Your task to perform on an android device: Open Android settings Image 0: 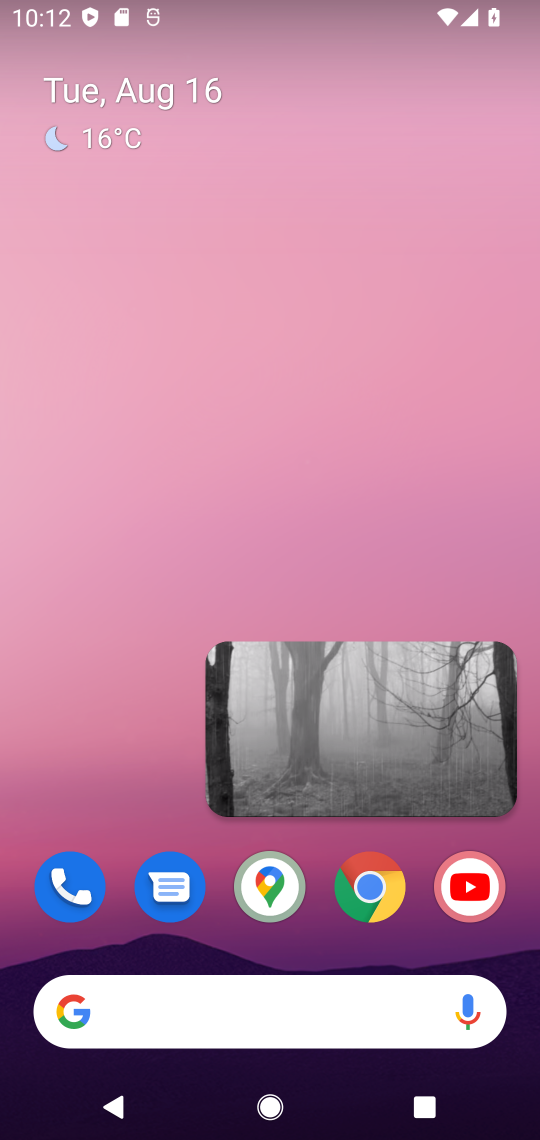
Step 0: press home button
Your task to perform on an android device: Open Android settings Image 1: 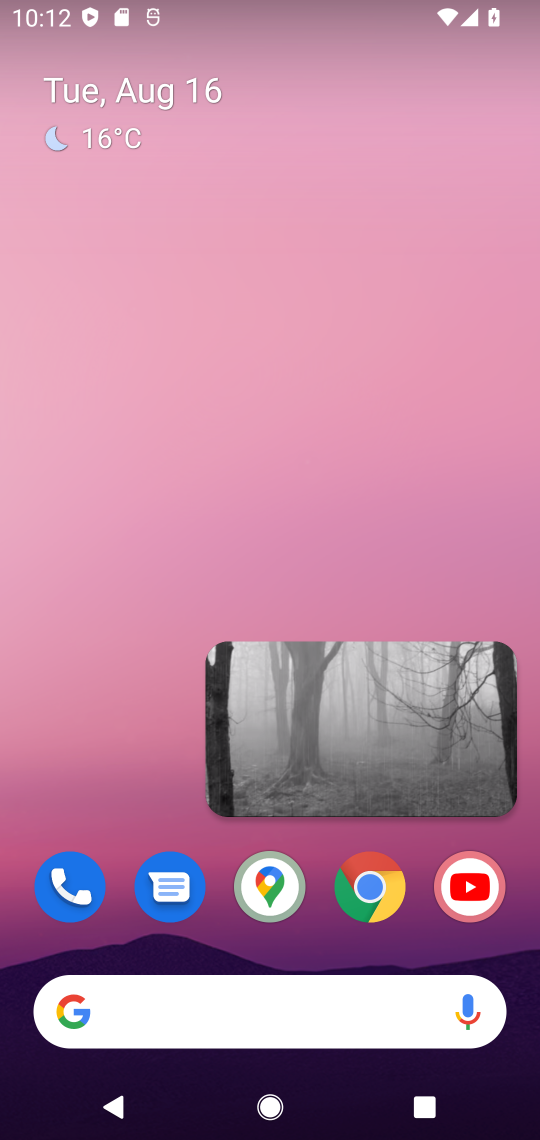
Step 1: drag from (85, 788) to (118, 137)
Your task to perform on an android device: Open Android settings Image 2: 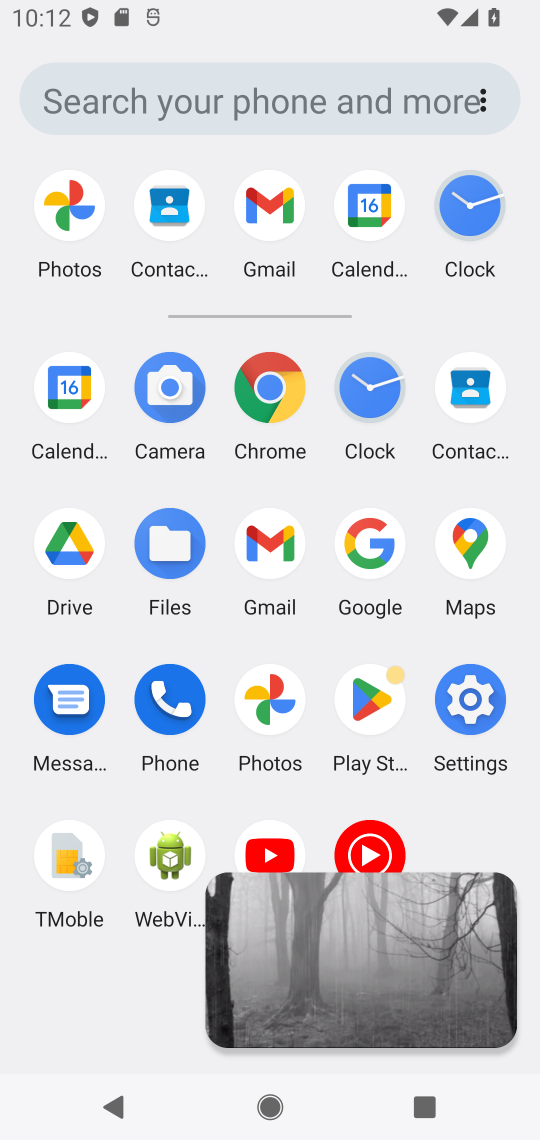
Step 2: click (474, 696)
Your task to perform on an android device: Open Android settings Image 3: 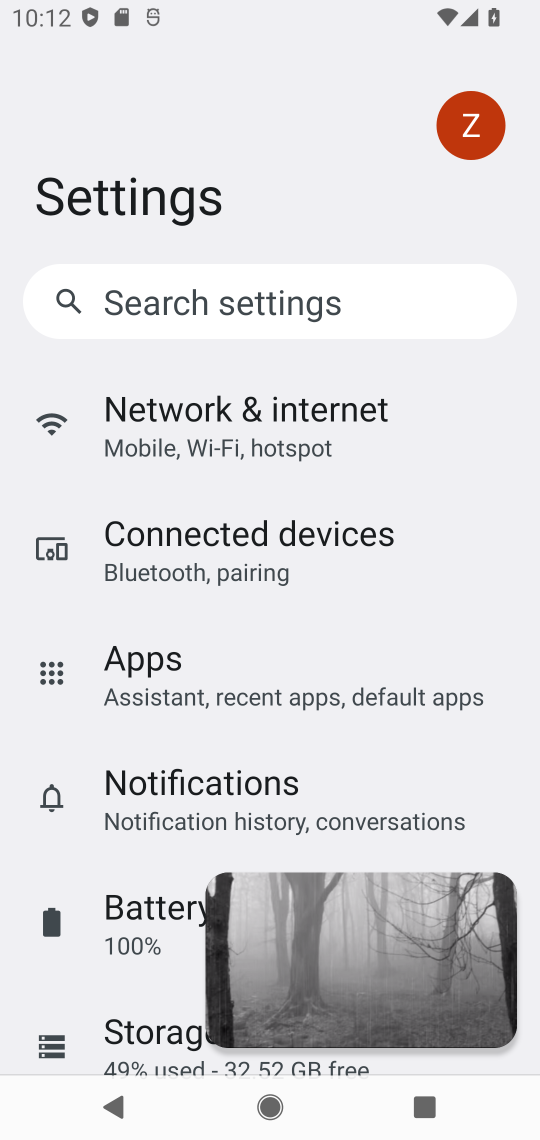
Step 3: drag from (420, 753) to (477, 420)
Your task to perform on an android device: Open Android settings Image 4: 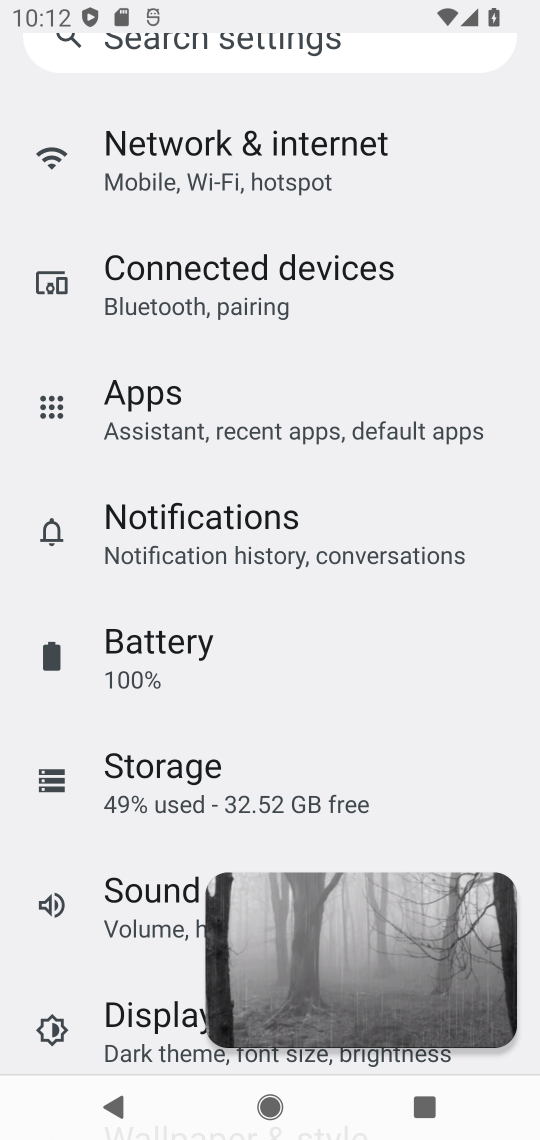
Step 4: drag from (438, 729) to (443, 556)
Your task to perform on an android device: Open Android settings Image 5: 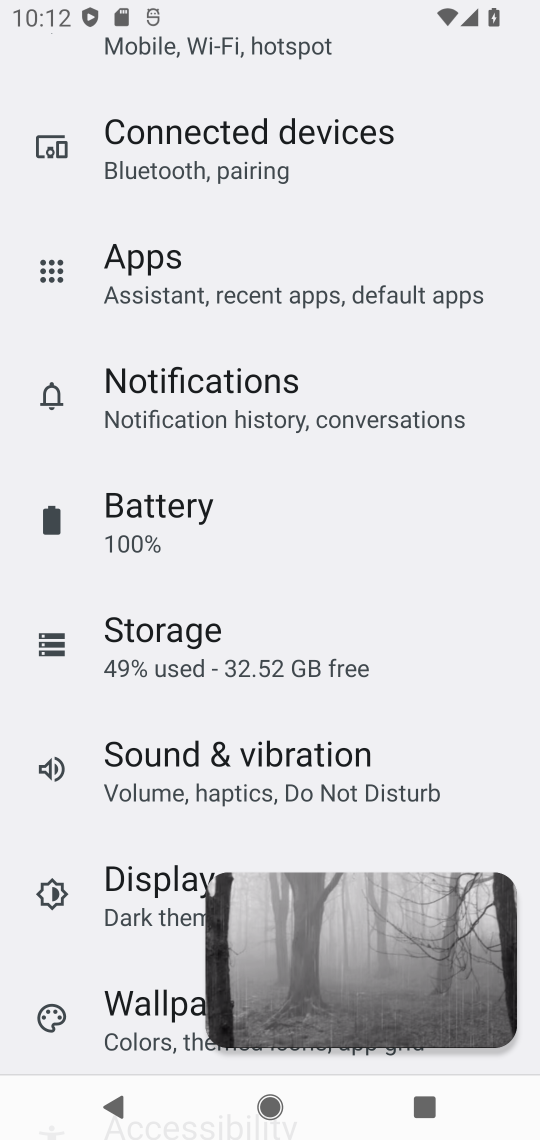
Step 5: drag from (446, 698) to (455, 489)
Your task to perform on an android device: Open Android settings Image 6: 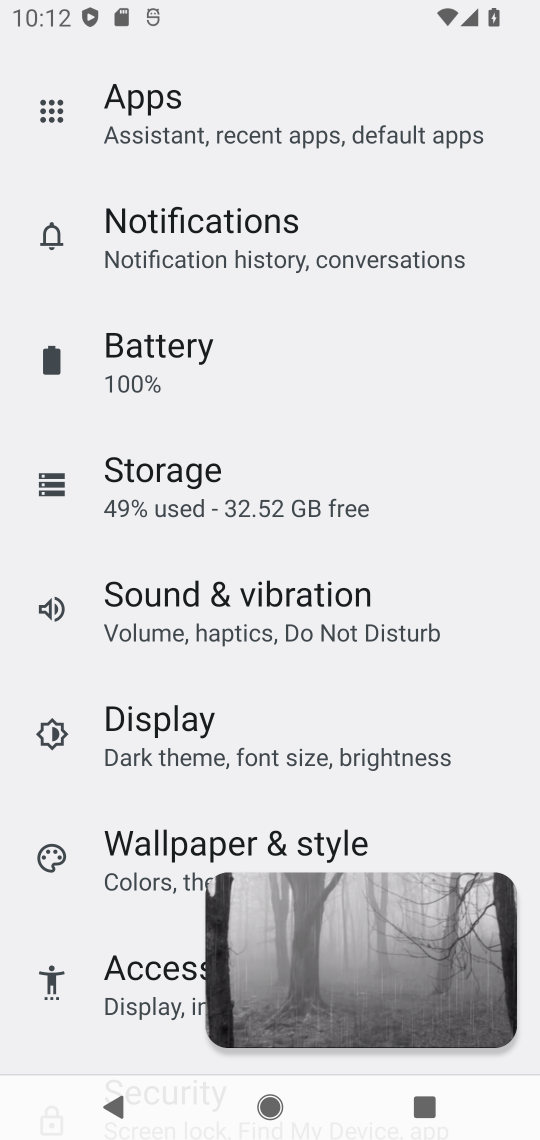
Step 6: drag from (476, 790) to (489, 507)
Your task to perform on an android device: Open Android settings Image 7: 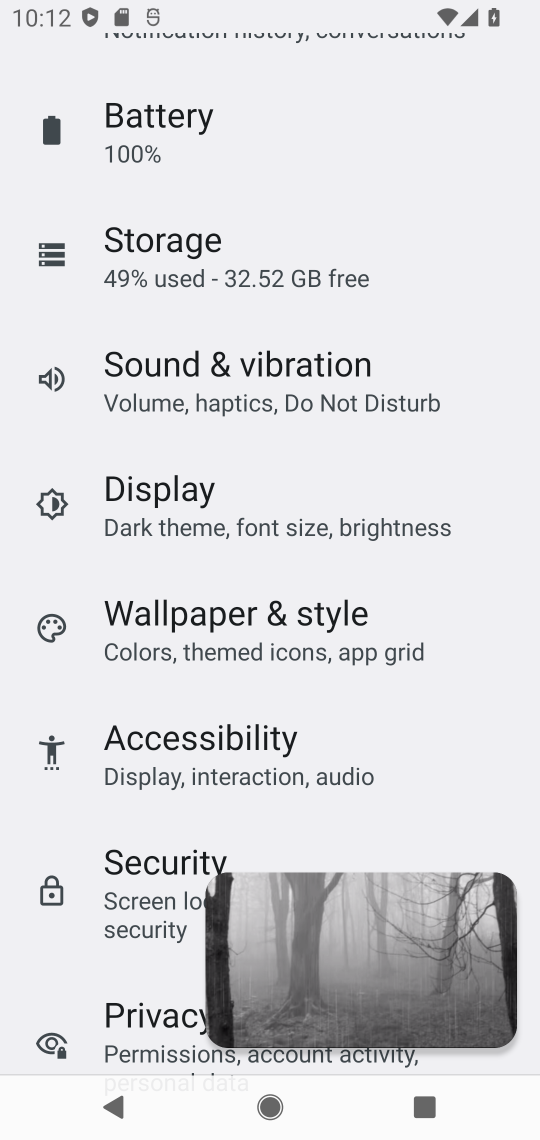
Step 7: drag from (448, 749) to (466, 437)
Your task to perform on an android device: Open Android settings Image 8: 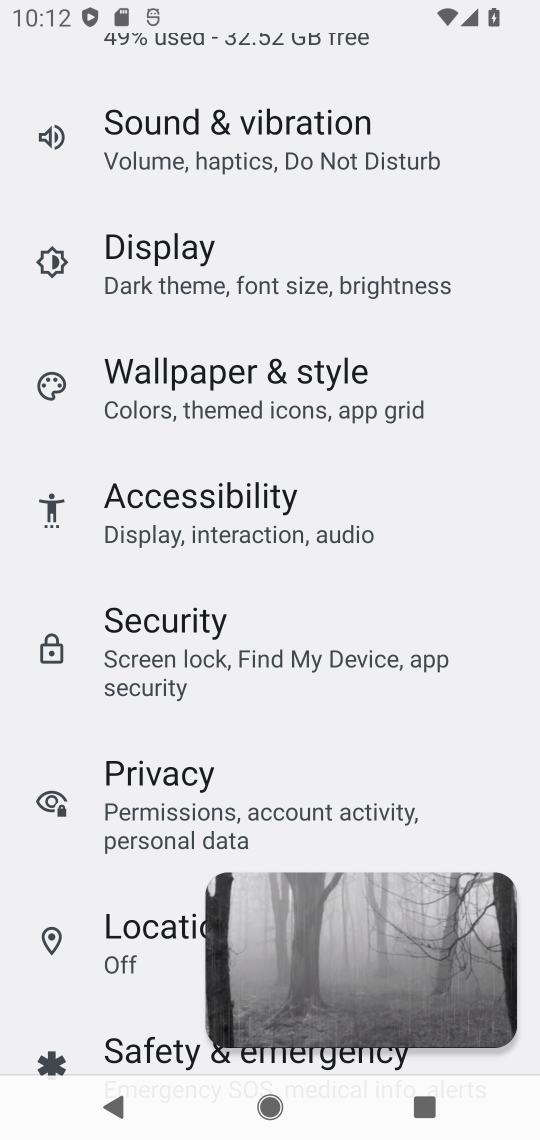
Step 8: drag from (417, 780) to (424, 498)
Your task to perform on an android device: Open Android settings Image 9: 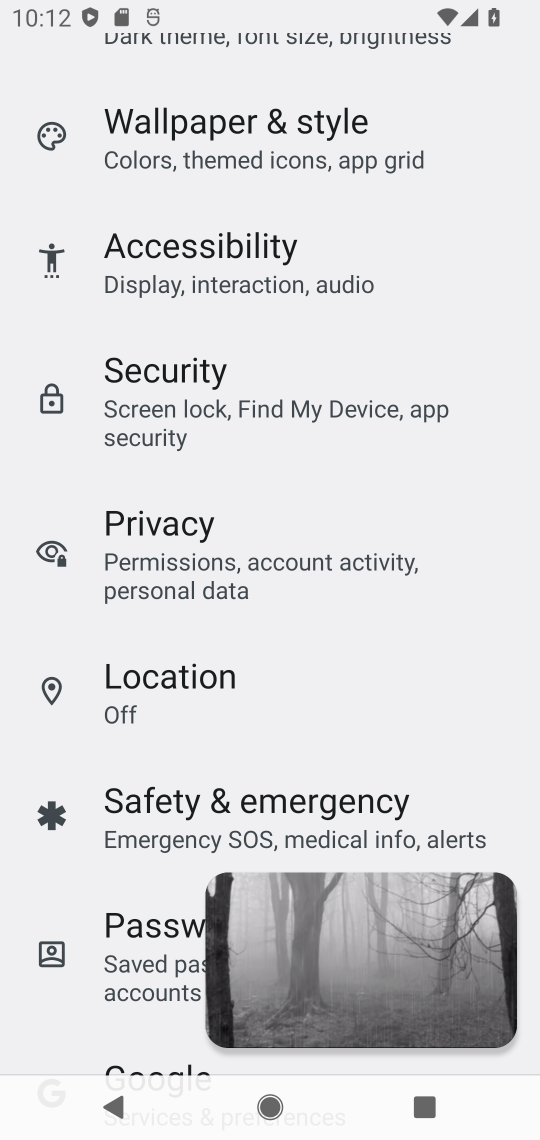
Step 9: drag from (371, 701) to (374, 449)
Your task to perform on an android device: Open Android settings Image 10: 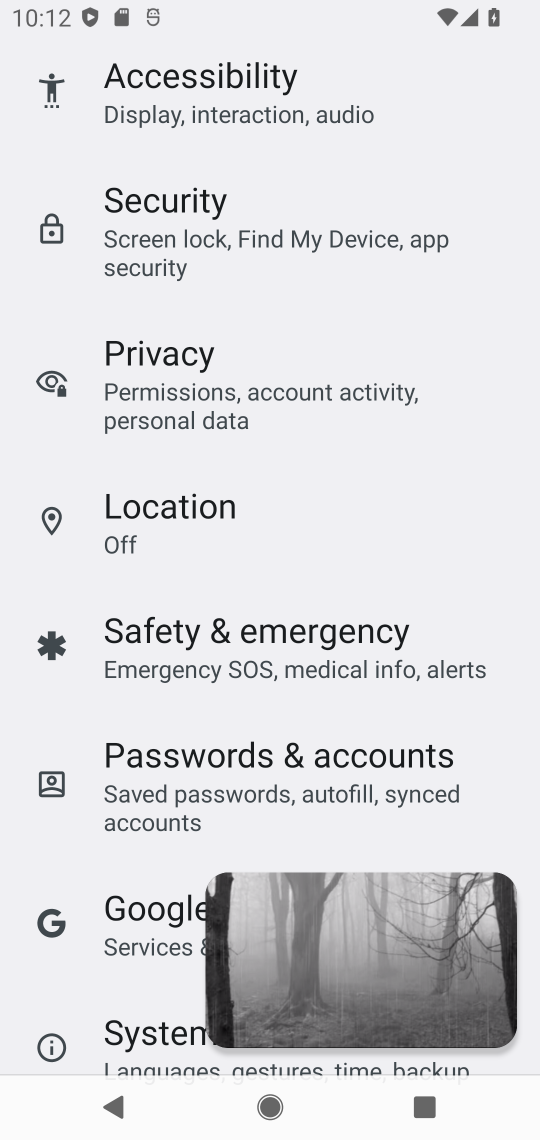
Step 10: drag from (320, 789) to (332, 434)
Your task to perform on an android device: Open Android settings Image 11: 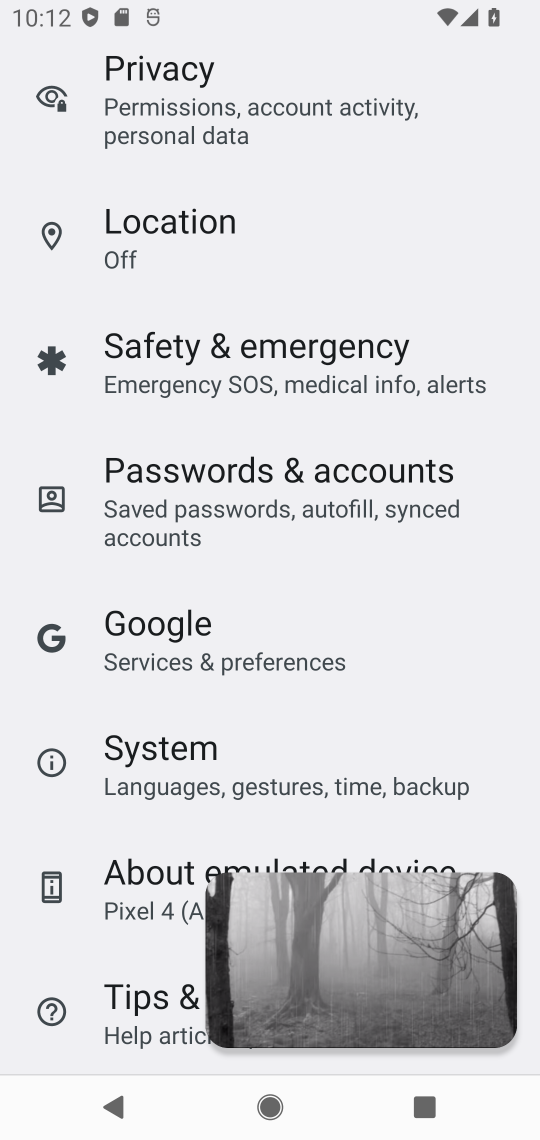
Step 11: click (423, 749)
Your task to perform on an android device: Open Android settings Image 12: 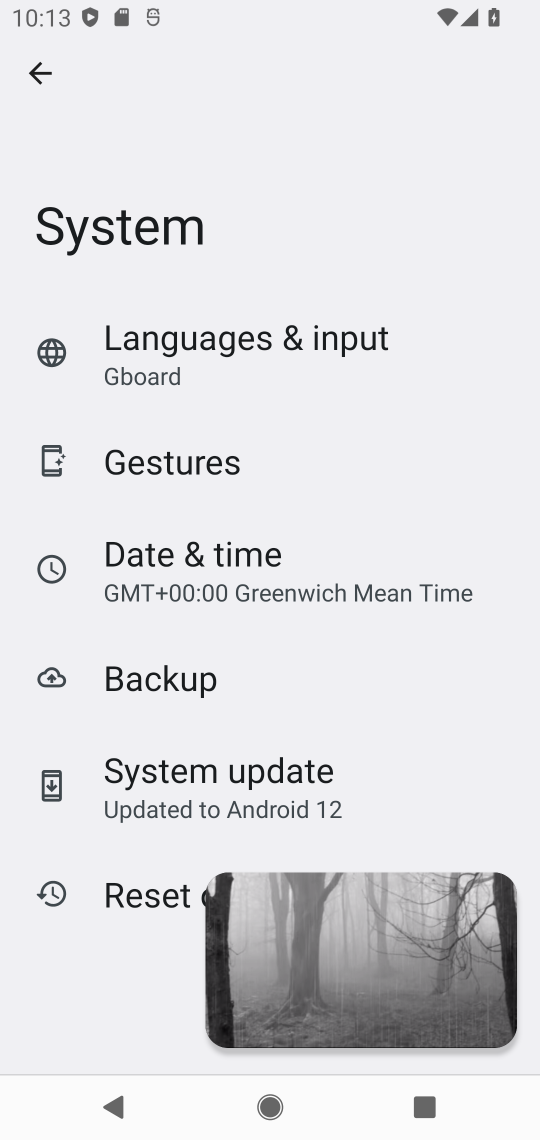
Step 12: task complete